Your task to perform on an android device: turn on location history Image 0: 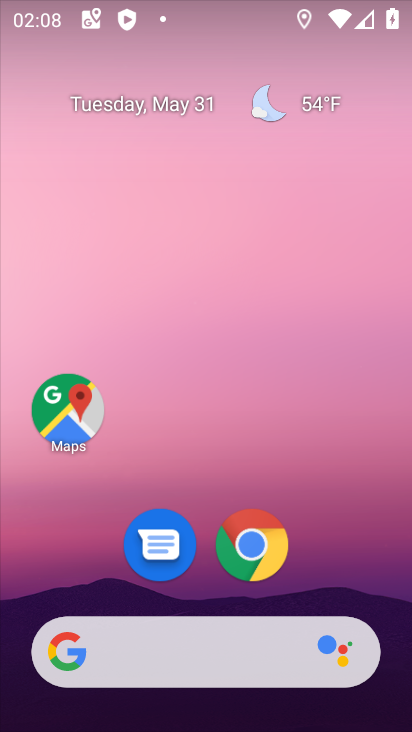
Step 0: drag from (333, 600) to (279, 9)
Your task to perform on an android device: turn on location history Image 1: 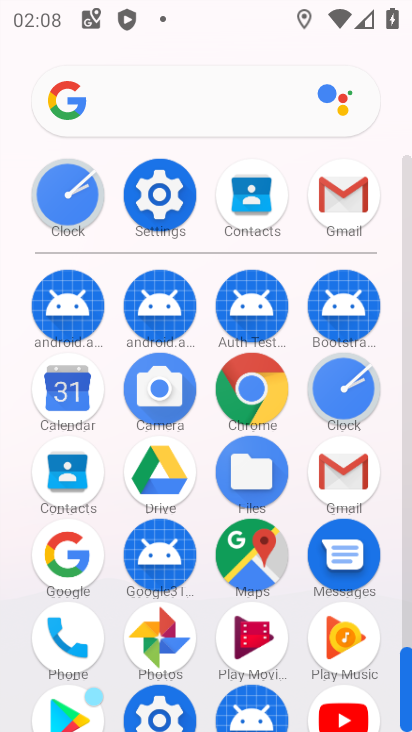
Step 1: click (180, 187)
Your task to perform on an android device: turn on location history Image 2: 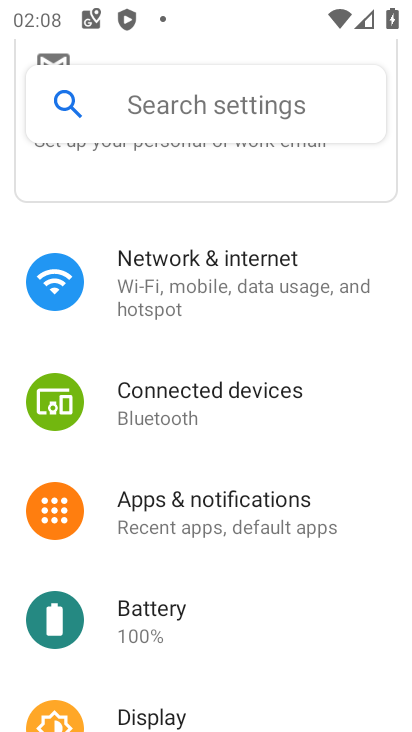
Step 2: drag from (229, 594) to (230, 222)
Your task to perform on an android device: turn on location history Image 3: 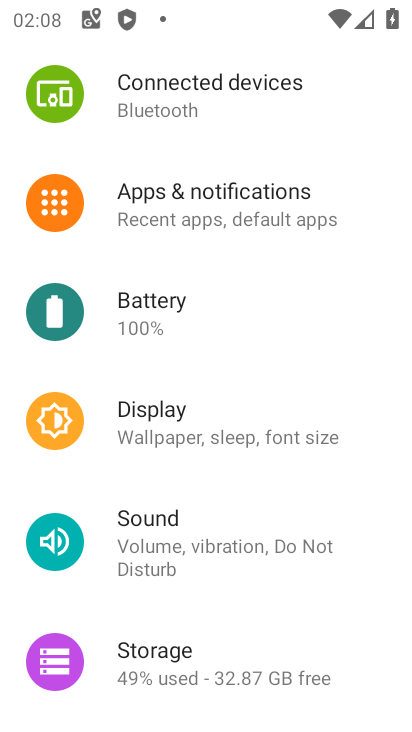
Step 3: drag from (270, 563) to (257, 186)
Your task to perform on an android device: turn on location history Image 4: 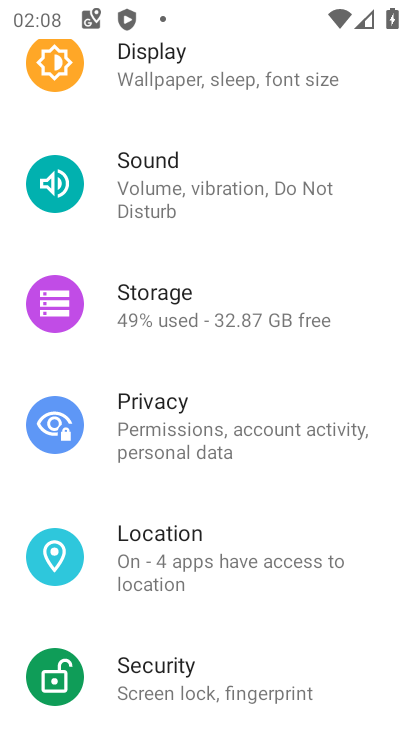
Step 4: click (241, 547)
Your task to perform on an android device: turn on location history Image 5: 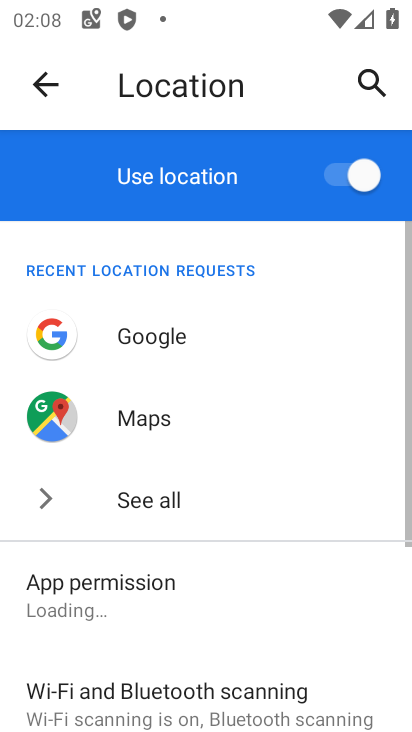
Step 5: drag from (302, 656) to (294, 212)
Your task to perform on an android device: turn on location history Image 6: 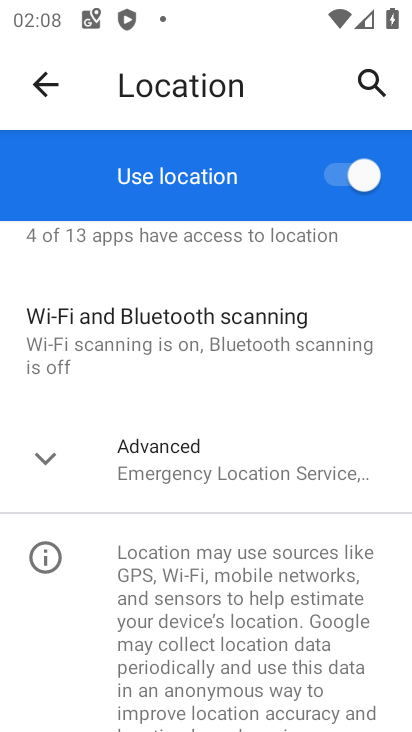
Step 6: click (284, 478)
Your task to perform on an android device: turn on location history Image 7: 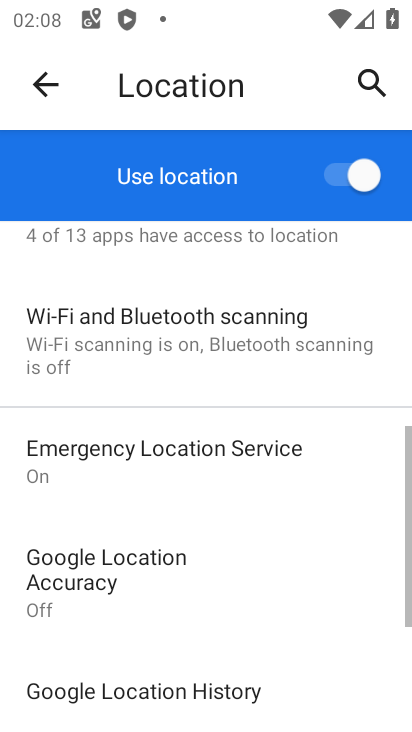
Step 7: drag from (298, 651) to (280, 395)
Your task to perform on an android device: turn on location history Image 8: 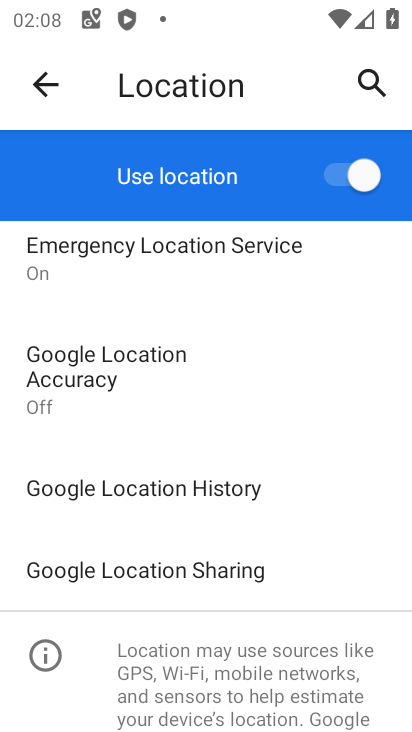
Step 8: click (239, 506)
Your task to perform on an android device: turn on location history Image 9: 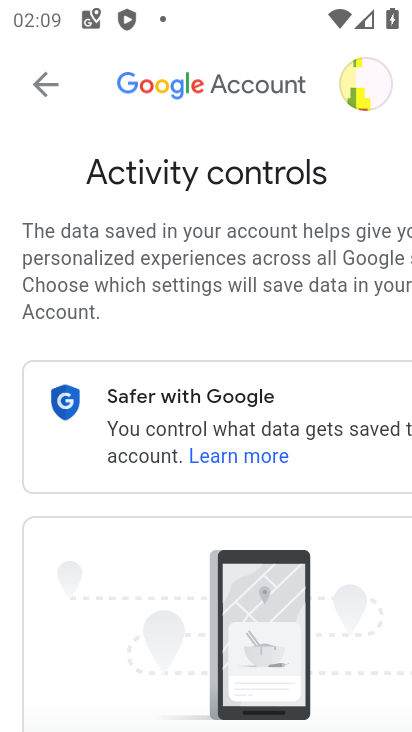
Step 9: drag from (245, 595) to (224, 320)
Your task to perform on an android device: turn on location history Image 10: 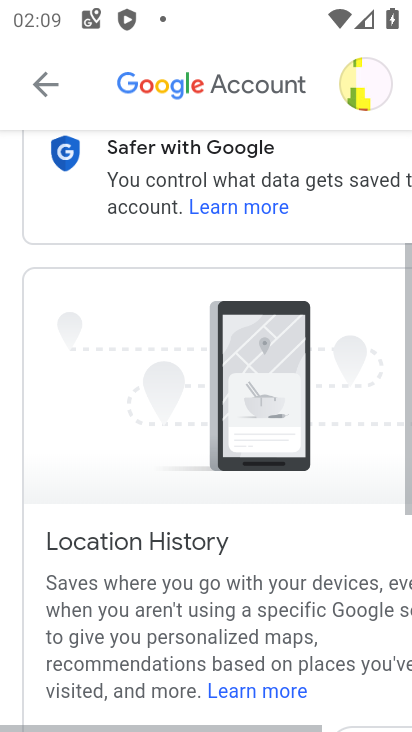
Step 10: click (229, 301)
Your task to perform on an android device: turn on location history Image 11: 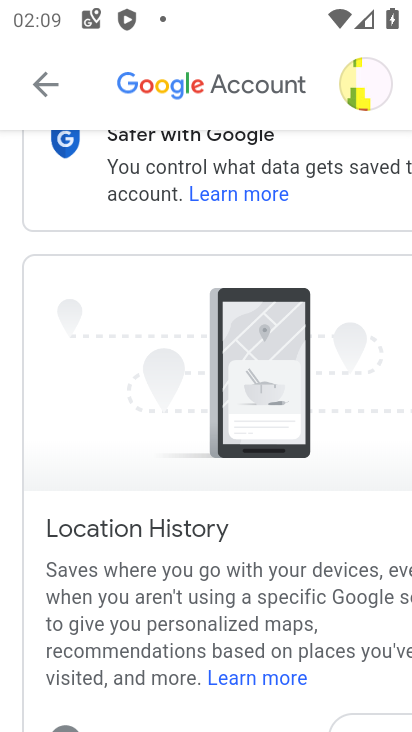
Step 11: drag from (240, 598) to (226, 284)
Your task to perform on an android device: turn on location history Image 12: 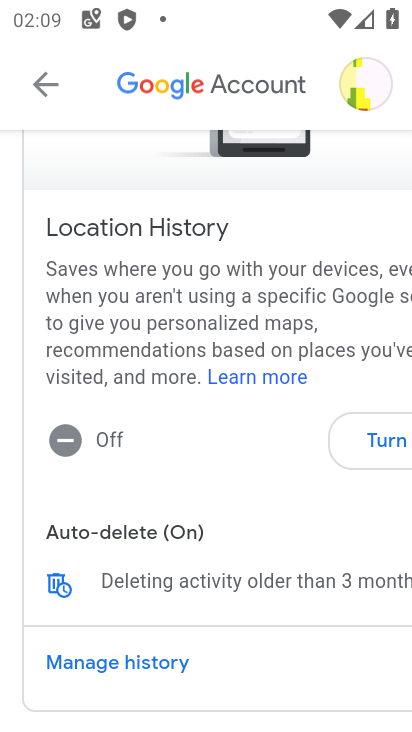
Step 12: click (386, 424)
Your task to perform on an android device: turn on location history Image 13: 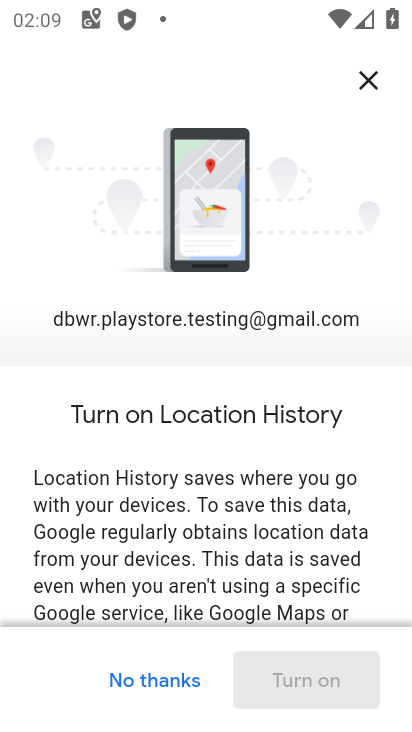
Step 13: drag from (272, 622) to (227, 202)
Your task to perform on an android device: turn on location history Image 14: 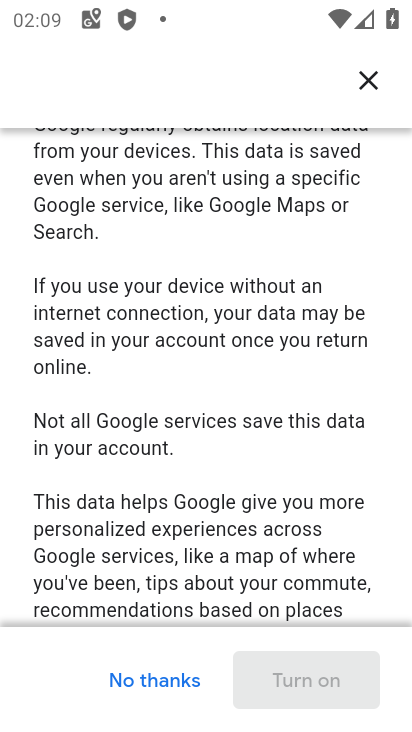
Step 14: drag from (244, 567) to (266, 185)
Your task to perform on an android device: turn on location history Image 15: 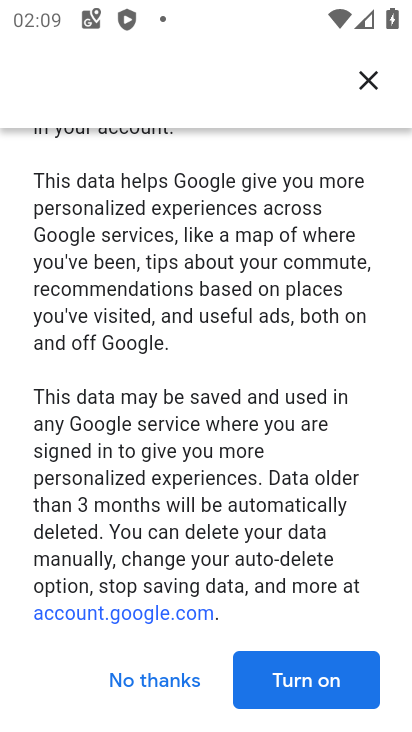
Step 15: drag from (259, 570) to (240, 230)
Your task to perform on an android device: turn on location history Image 16: 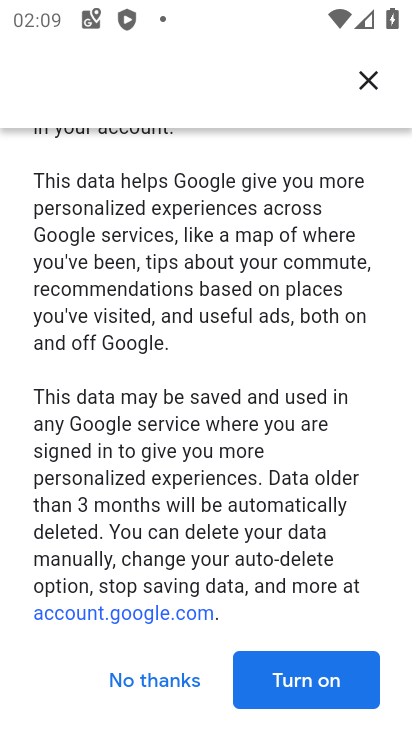
Step 16: click (288, 662)
Your task to perform on an android device: turn on location history Image 17: 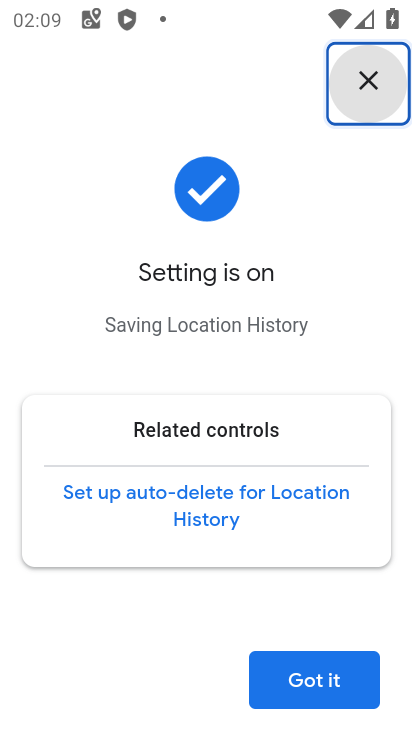
Step 17: click (290, 675)
Your task to perform on an android device: turn on location history Image 18: 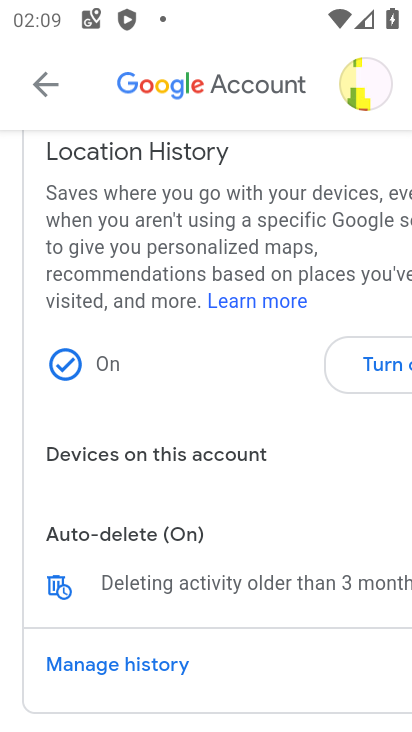
Step 18: task complete